Your task to perform on an android device: change the upload size in google photos Image 0: 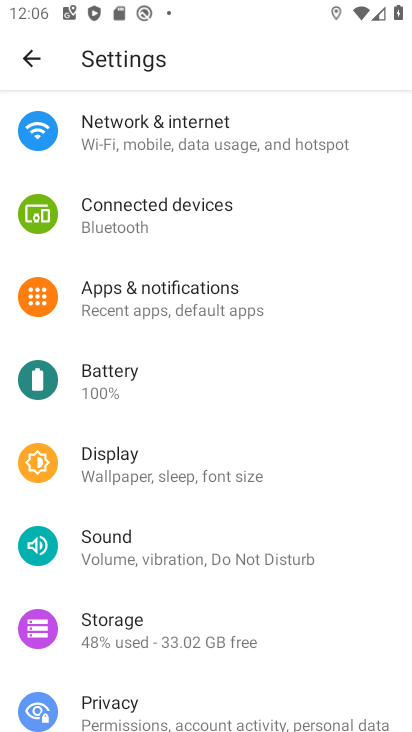
Step 0: press home button
Your task to perform on an android device: change the upload size in google photos Image 1: 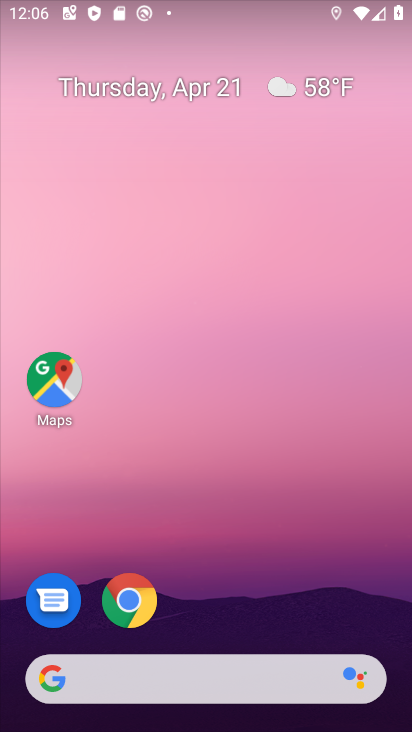
Step 1: drag from (232, 642) to (162, 7)
Your task to perform on an android device: change the upload size in google photos Image 2: 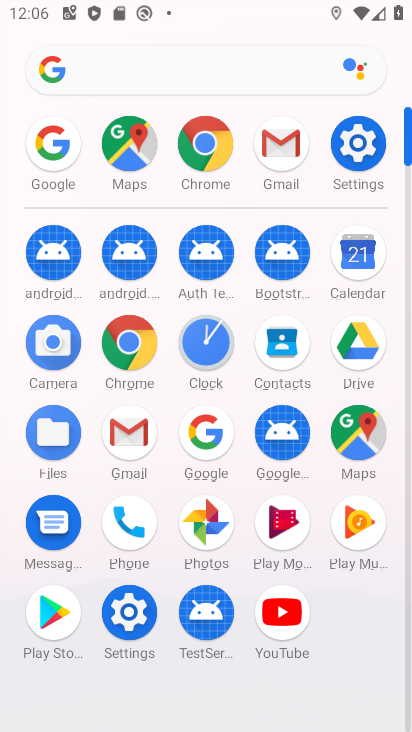
Step 2: click (197, 530)
Your task to perform on an android device: change the upload size in google photos Image 3: 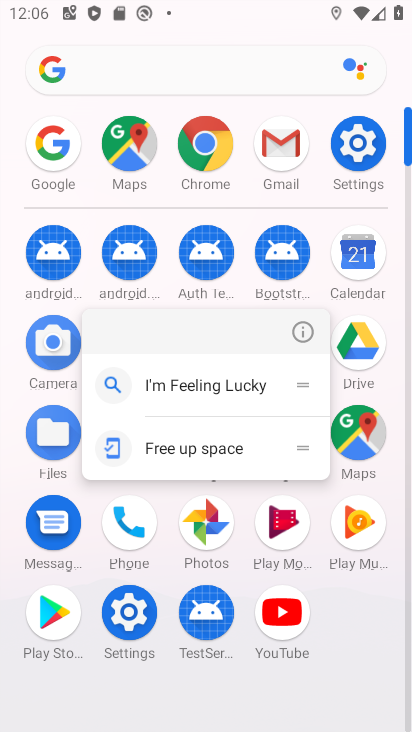
Step 3: click (204, 524)
Your task to perform on an android device: change the upload size in google photos Image 4: 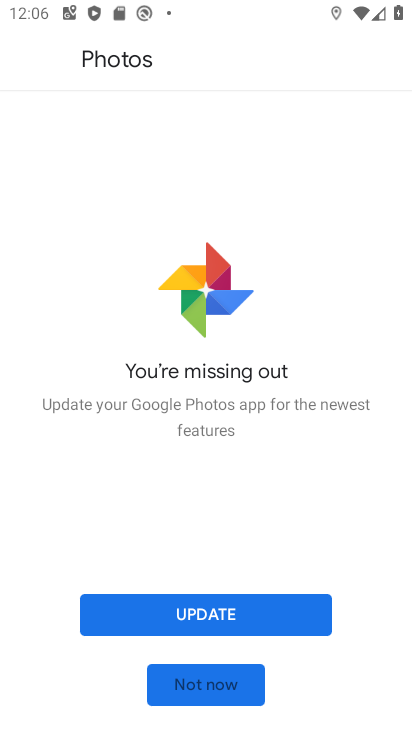
Step 4: click (191, 679)
Your task to perform on an android device: change the upload size in google photos Image 5: 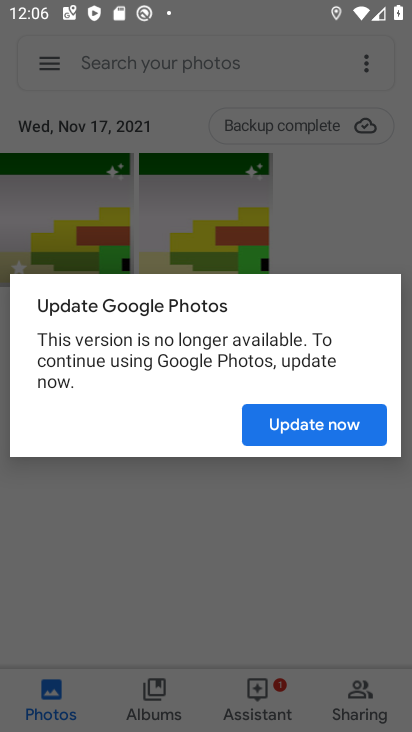
Step 5: click (284, 417)
Your task to perform on an android device: change the upload size in google photos Image 6: 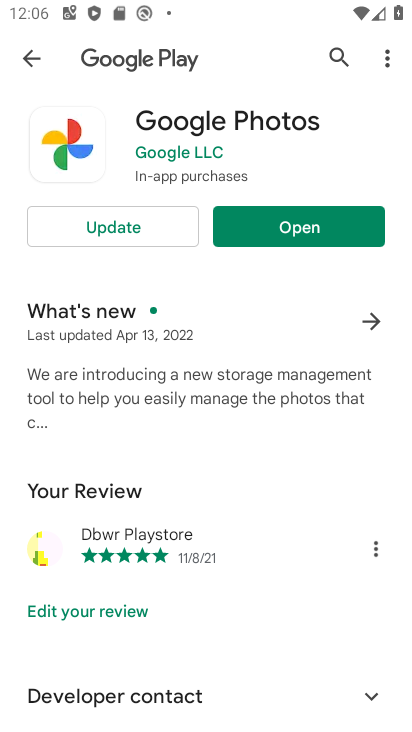
Step 6: click (311, 232)
Your task to perform on an android device: change the upload size in google photos Image 7: 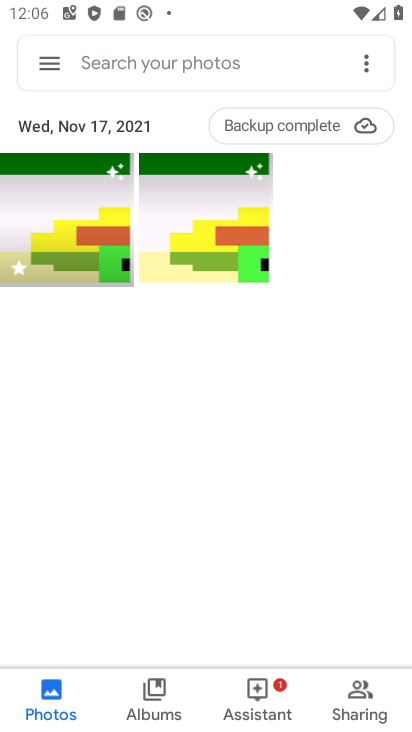
Step 7: click (57, 66)
Your task to perform on an android device: change the upload size in google photos Image 8: 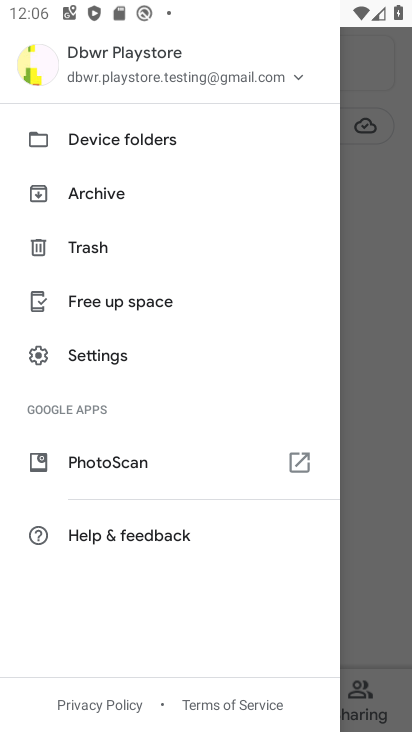
Step 8: click (94, 87)
Your task to perform on an android device: change the upload size in google photos Image 9: 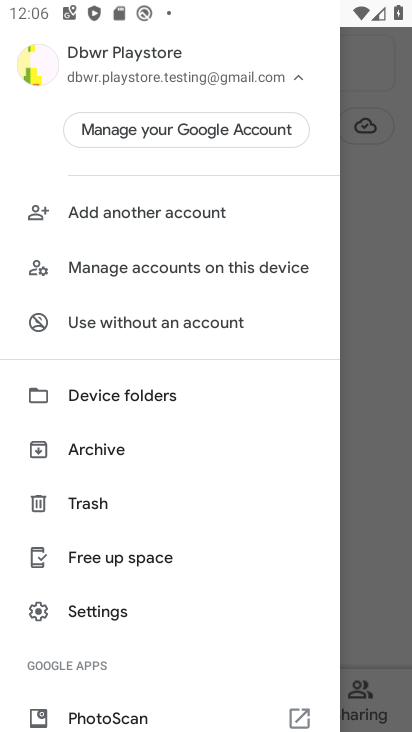
Step 9: click (92, 614)
Your task to perform on an android device: change the upload size in google photos Image 10: 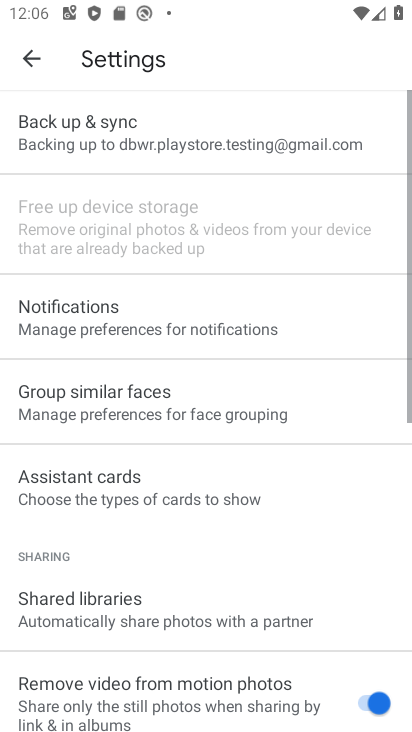
Step 10: click (140, 137)
Your task to perform on an android device: change the upload size in google photos Image 11: 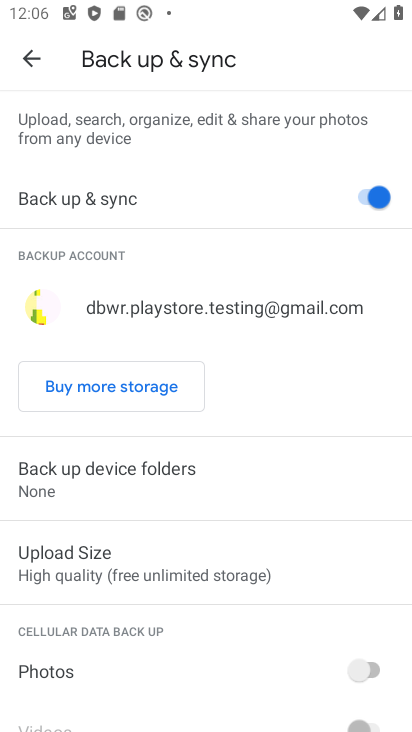
Step 11: click (139, 572)
Your task to perform on an android device: change the upload size in google photos Image 12: 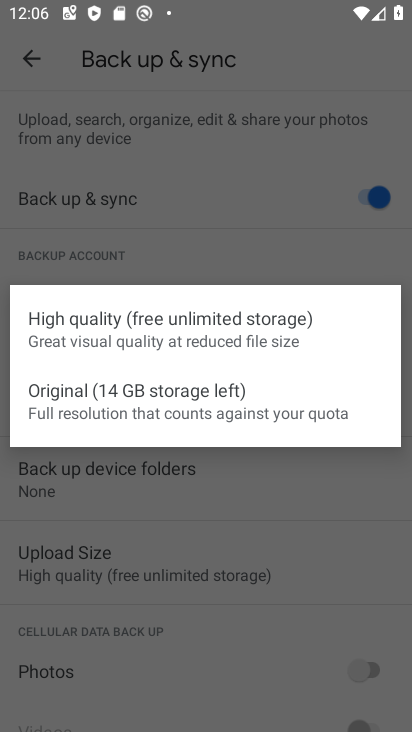
Step 12: click (118, 413)
Your task to perform on an android device: change the upload size in google photos Image 13: 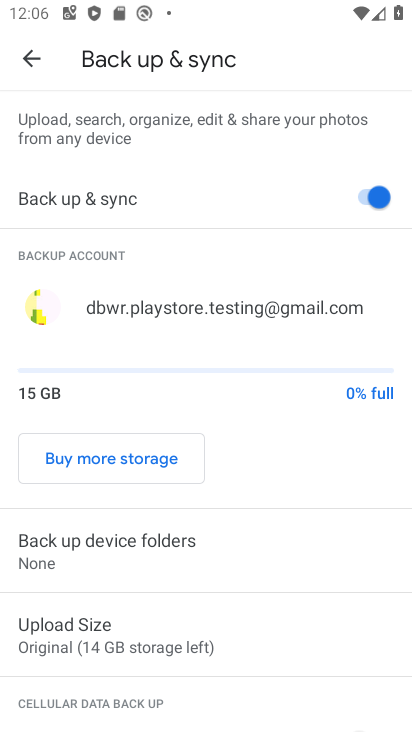
Step 13: task complete